Your task to perform on an android device: turn on javascript in the chrome app Image 0: 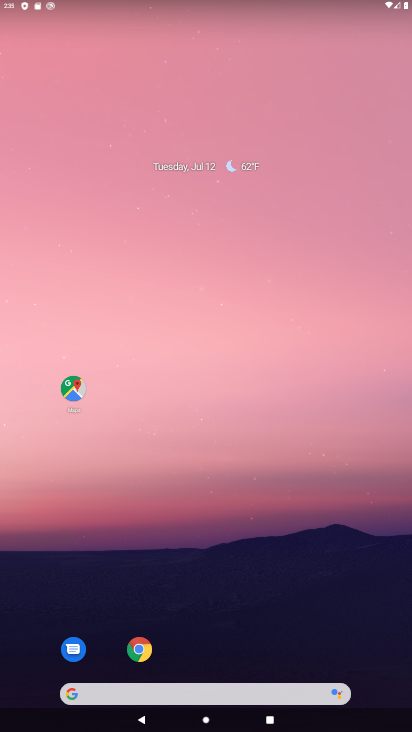
Step 0: drag from (188, 628) to (388, 126)
Your task to perform on an android device: turn on javascript in the chrome app Image 1: 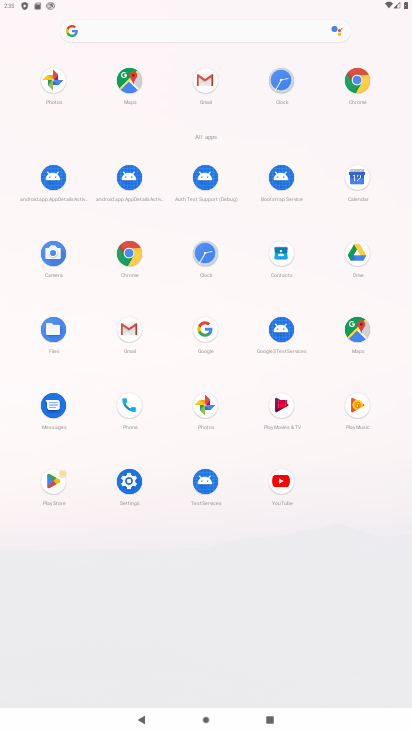
Step 1: click (131, 255)
Your task to perform on an android device: turn on javascript in the chrome app Image 2: 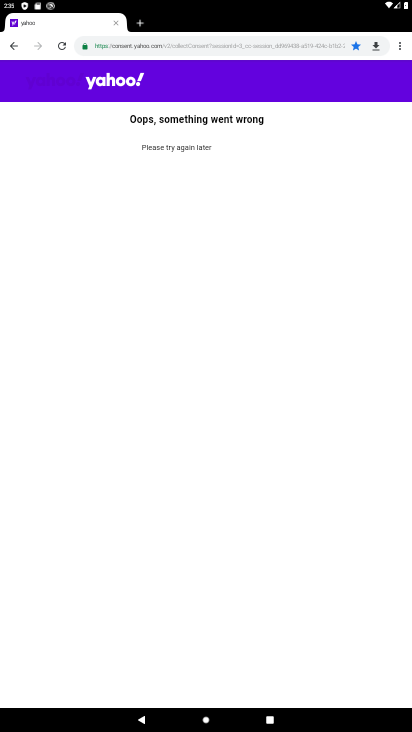
Step 2: drag from (402, 43) to (325, 272)
Your task to perform on an android device: turn on javascript in the chrome app Image 3: 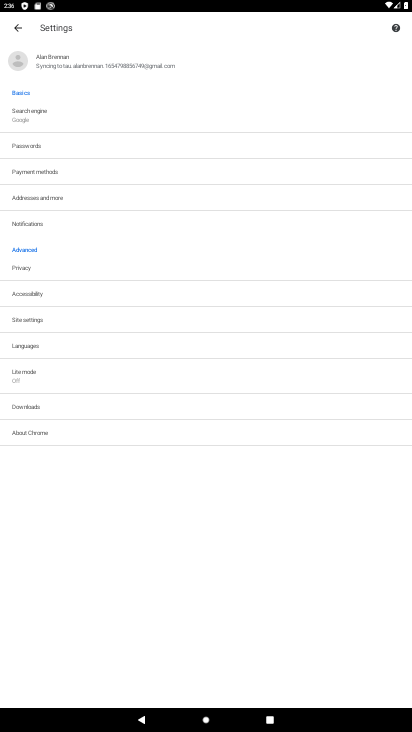
Step 3: click (56, 328)
Your task to perform on an android device: turn on javascript in the chrome app Image 4: 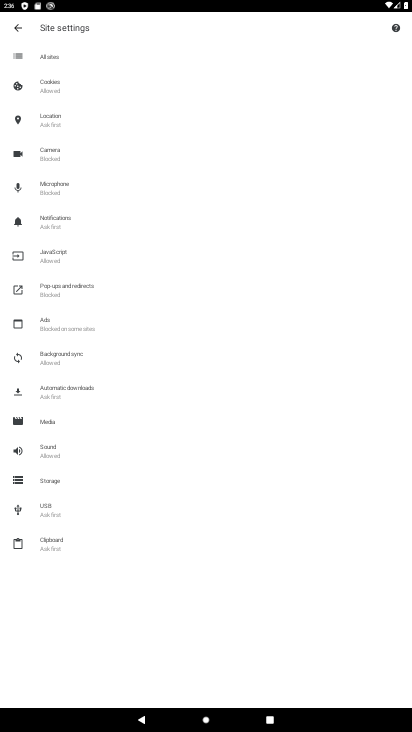
Step 4: drag from (236, 426) to (56, 325)
Your task to perform on an android device: turn on javascript in the chrome app Image 5: 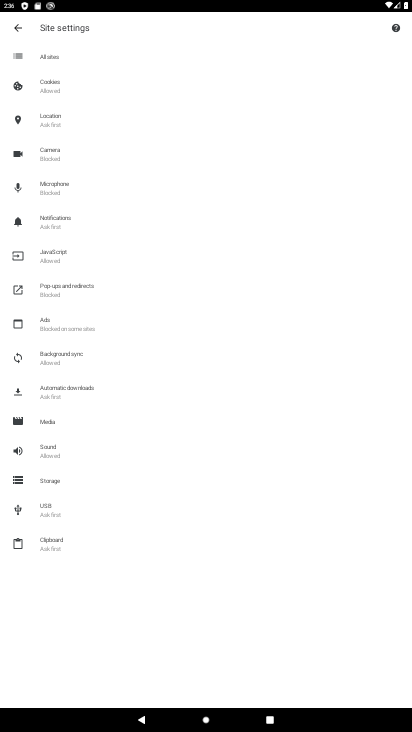
Step 5: click (92, 273)
Your task to perform on an android device: turn on javascript in the chrome app Image 6: 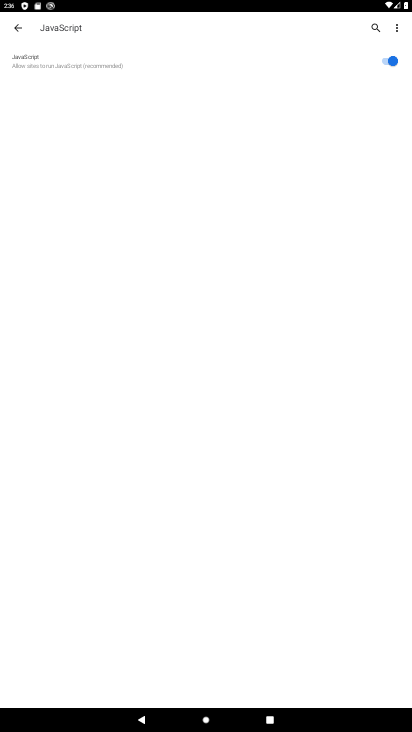
Step 6: task complete